Your task to perform on an android device: create a new album in the google photos Image 0: 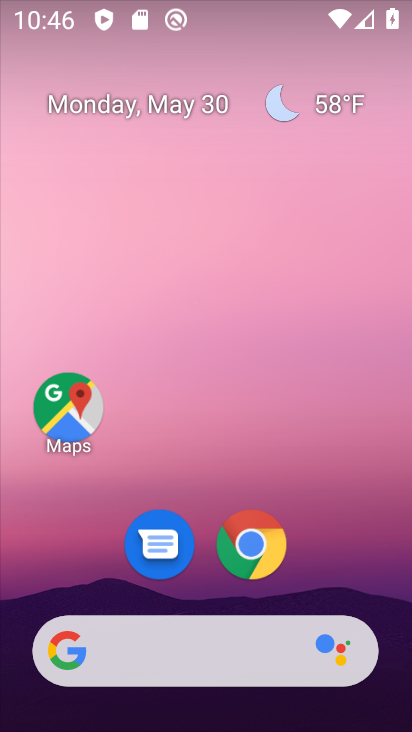
Step 0: drag from (368, 592) to (328, 130)
Your task to perform on an android device: create a new album in the google photos Image 1: 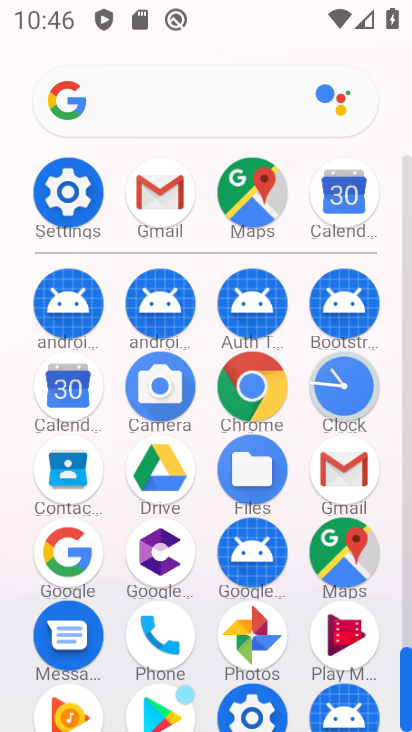
Step 1: click (259, 639)
Your task to perform on an android device: create a new album in the google photos Image 2: 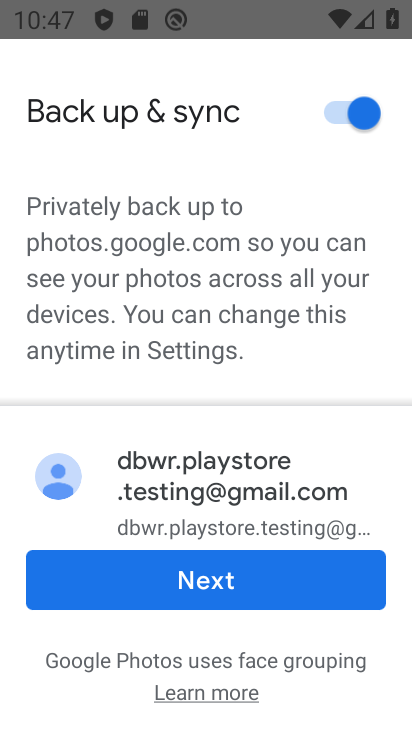
Step 2: click (221, 586)
Your task to perform on an android device: create a new album in the google photos Image 3: 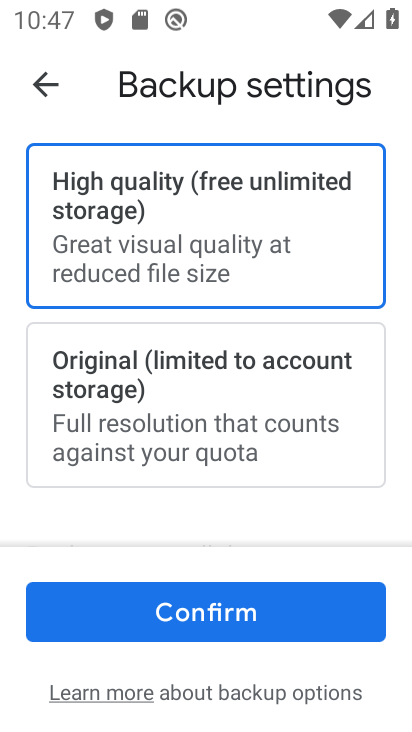
Step 3: click (209, 634)
Your task to perform on an android device: create a new album in the google photos Image 4: 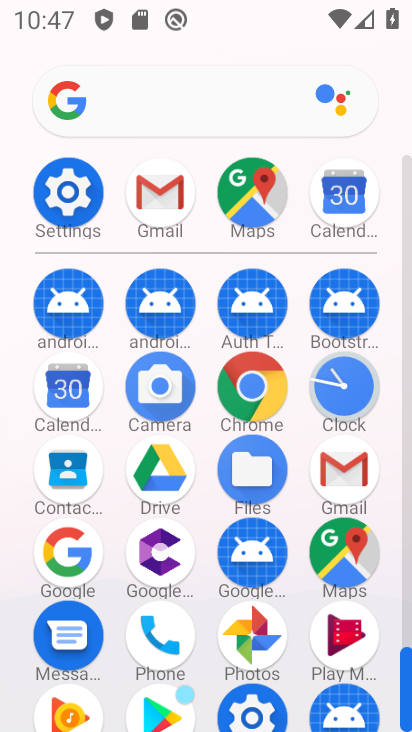
Step 4: click (253, 618)
Your task to perform on an android device: create a new album in the google photos Image 5: 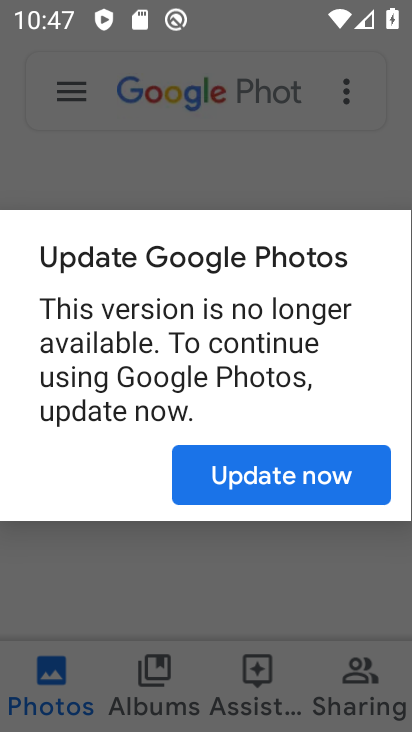
Step 5: click (334, 486)
Your task to perform on an android device: create a new album in the google photos Image 6: 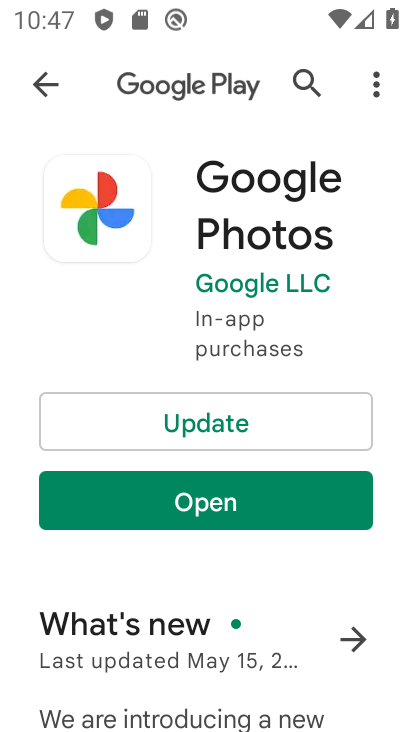
Step 6: click (254, 423)
Your task to perform on an android device: create a new album in the google photos Image 7: 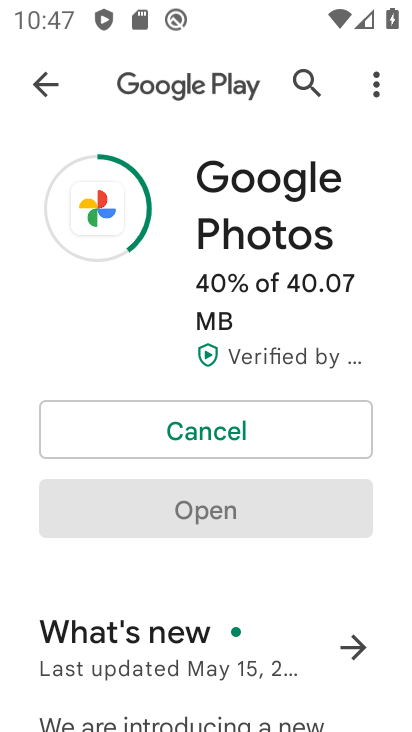
Step 7: task complete